Your task to perform on an android device: Open calendar and show me the second week of next month Image 0: 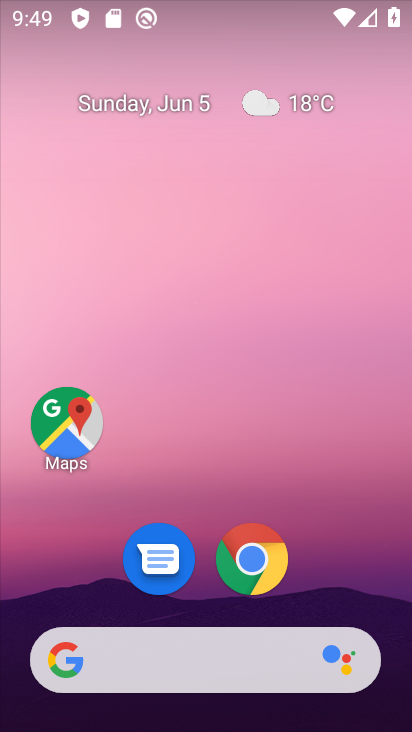
Step 0: drag from (331, 562) to (366, 62)
Your task to perform on an android device: Open calendar and show me the second week of next month Image 1: 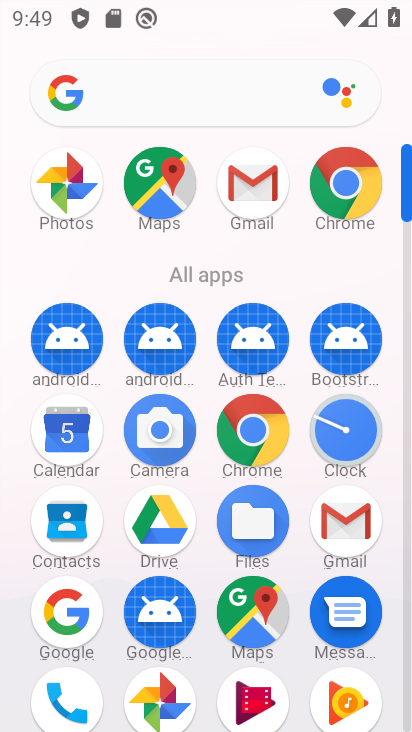
Step 1: click (75, 424)
Your task to perform on an android device: Open calendar and show me the second week of next month Image 2: 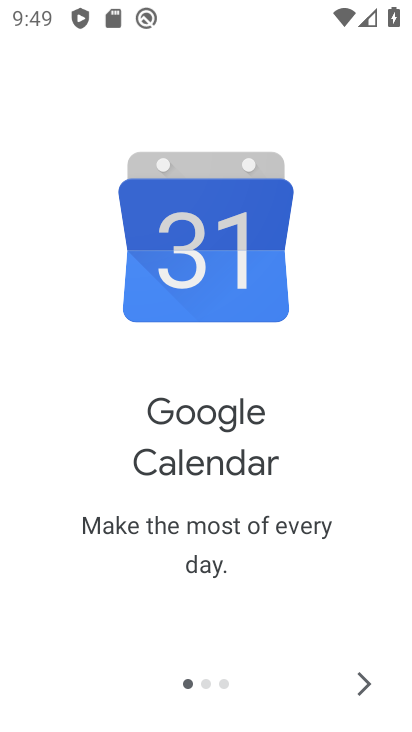
Step 2: click (366, 676)
Your task to perform on an android device: Open calendar and show me the second week of next month Image 3: 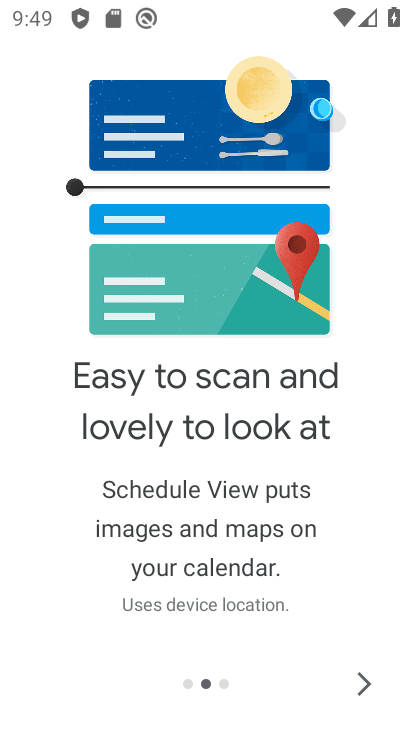
Step 3: click (366, 676)
Your task to perform on an android device: Open calendar and show me the second week of next month Image 4: 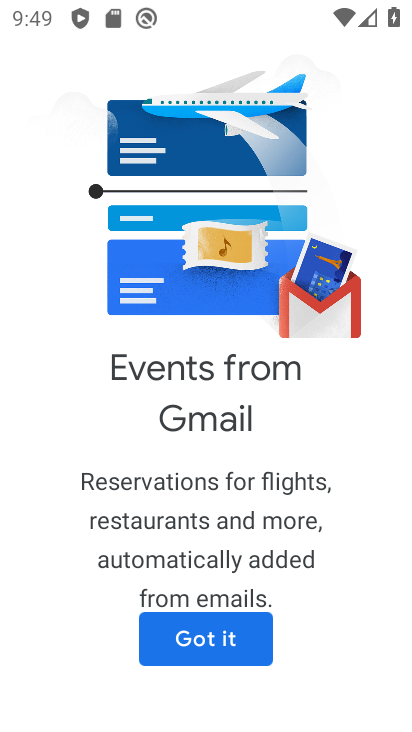
Step 4: click (366, 676)
Your task to perform on an android device: Open calendar and show me the second week of next month Image 5: 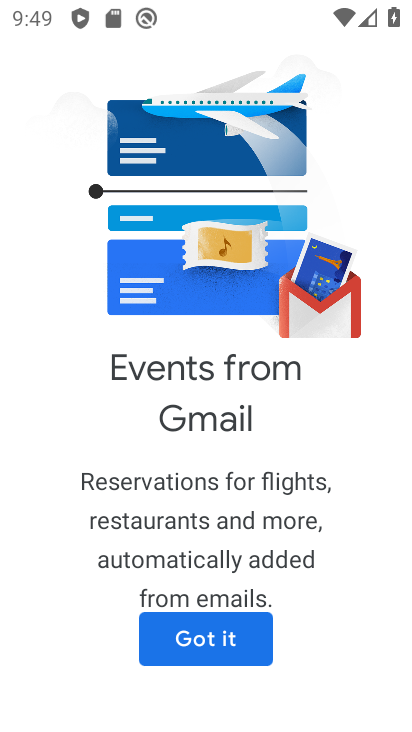
Step 5: click (199, 632)
Your task to perform on an android device: Open calendar and show me the second week of next month Image 6: 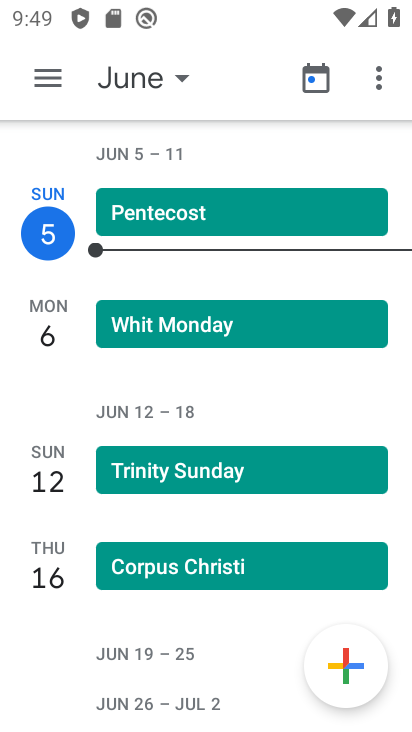
Step 6: click (184, 74)
Your task to perform on an android device: Open calendar and show me the second week of next month Image 7: 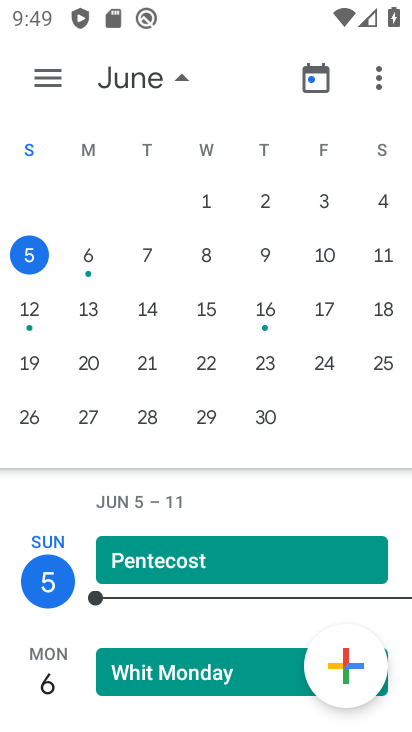
Step 7: drag from (394, 252) to (7, 251)
Your task to perform on an android device: Open calendar and show me the second week of next month Image 8: 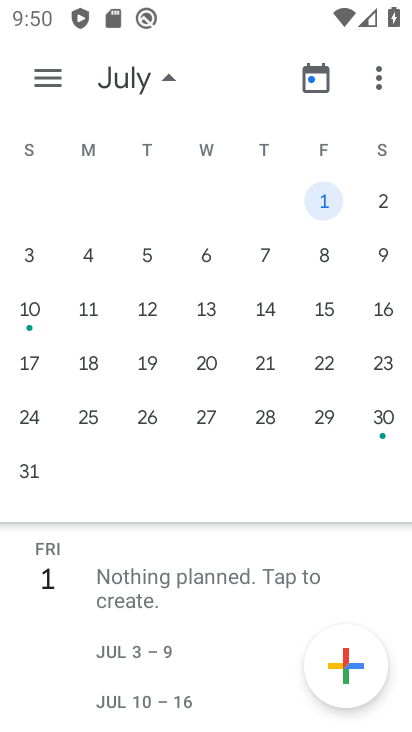
Step 8: click (323, 251)
Your task to perform on an android device: Open calendar and show me the second week of next month Image 9: 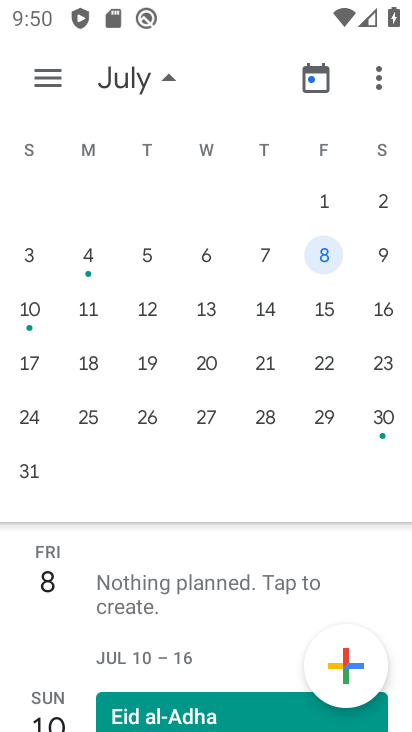
Step 9: task complete